Your task to perform on an android device: turn off airplane mode Image 0: 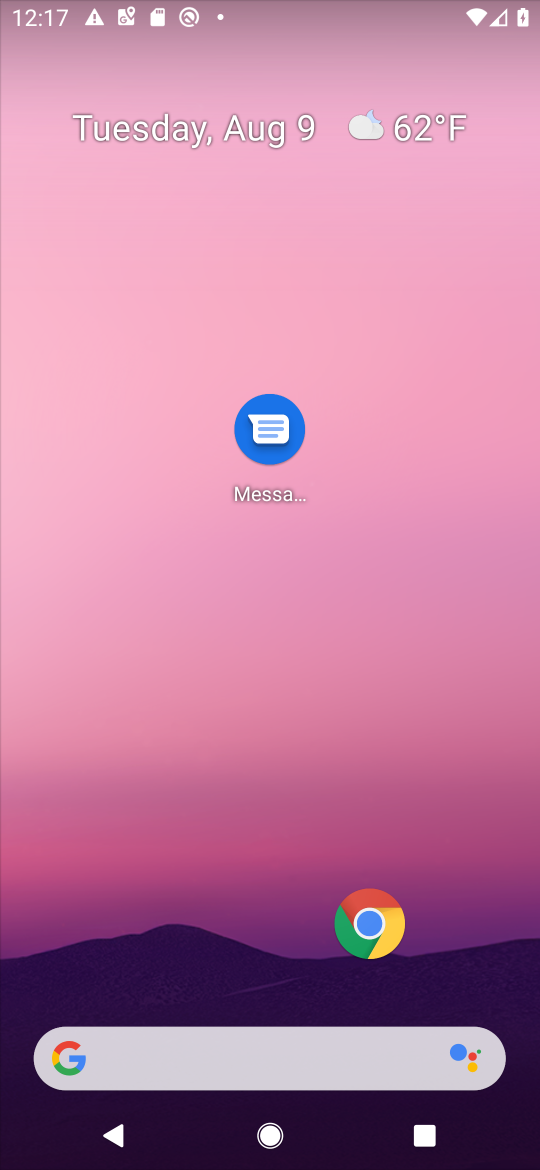
Step 0: drag from (39, 1124) to (415, 119)
Your task to perform on an android device: turn off airplane mode Image 1: 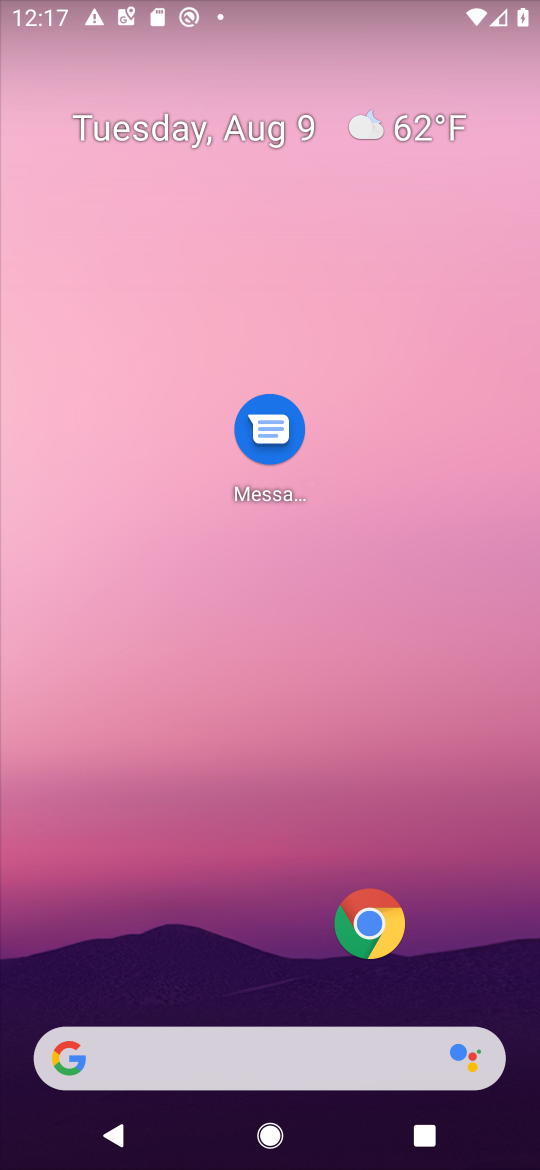
Step 1: task complete